Your task to perform on an android device: Search for Mexican restaurants on Maps Image 0: 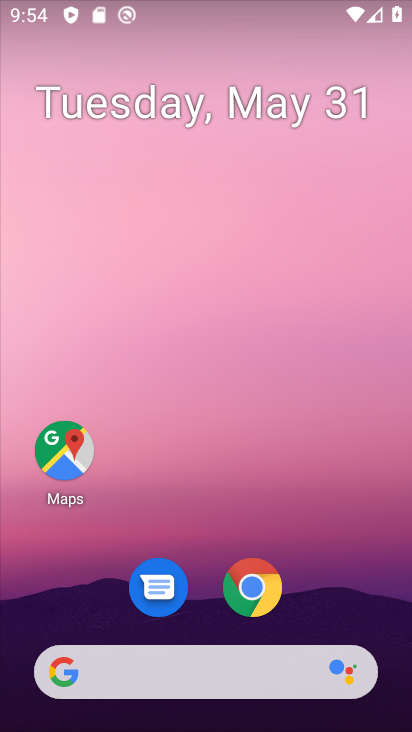
Step 0: press home button
Your task to perform on an android device: Search for Mexican restaurants on Maps Image 1: 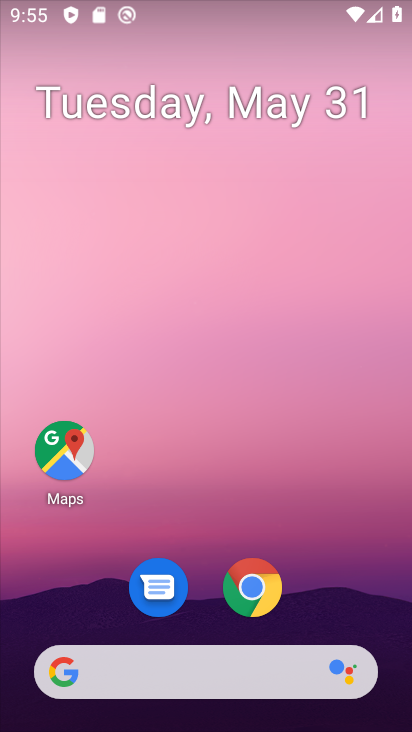
Step 1: click (55, 443)
Your task to perform on an android device: Search for Mexican restaurants on Maps Image 2: 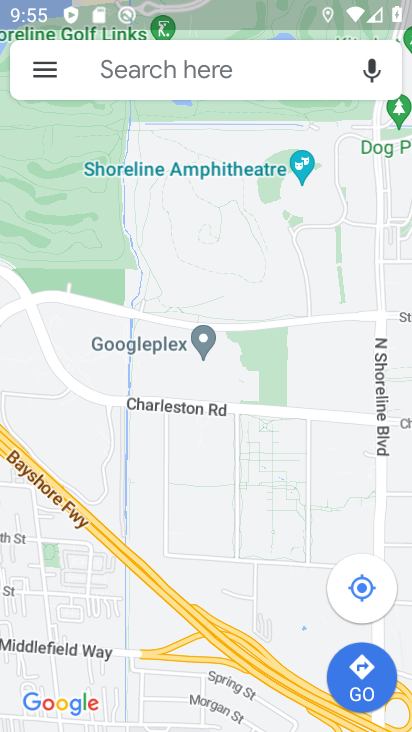
Step 2: click (182, 68)
Your task to perform on an android device: Search for Mexican restaurants on Maps Image 3: 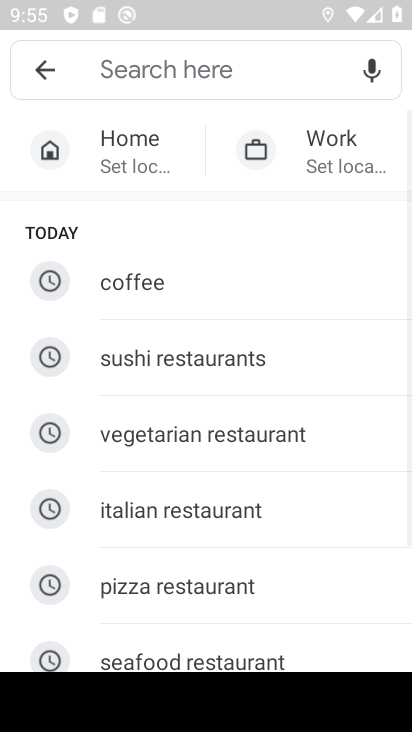
Step 3: drag from (196, 626) to (222, 248)
Your task to perform on an android device: Search for Mexican restaurants on Maps Image 4: 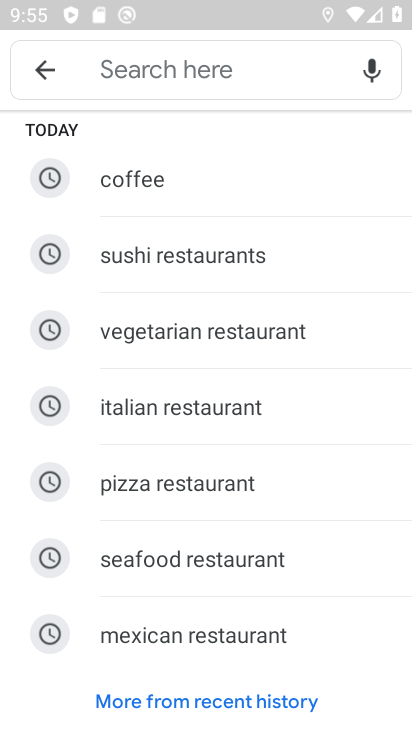
Step 4: click (212, 629)
Your task to perform on an android device: Search for Mexican restaurants on Maps Image 5: 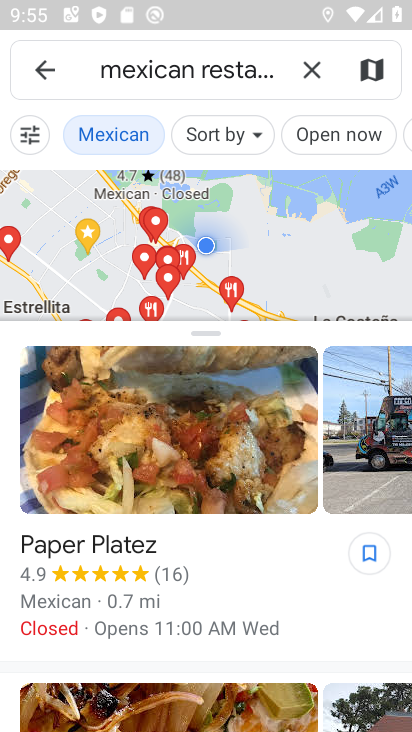
Step 5: task complete